Your task to perform on an android device: Open notification settings Image 0: 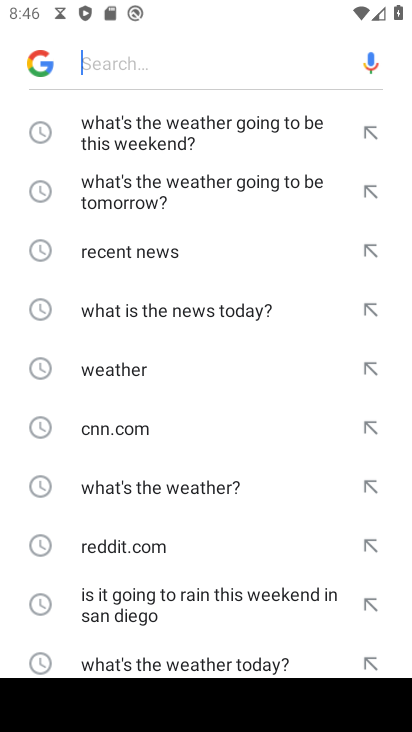
Step 0: press home button
Your task to perform on an android device: Open notification settings Image 1: 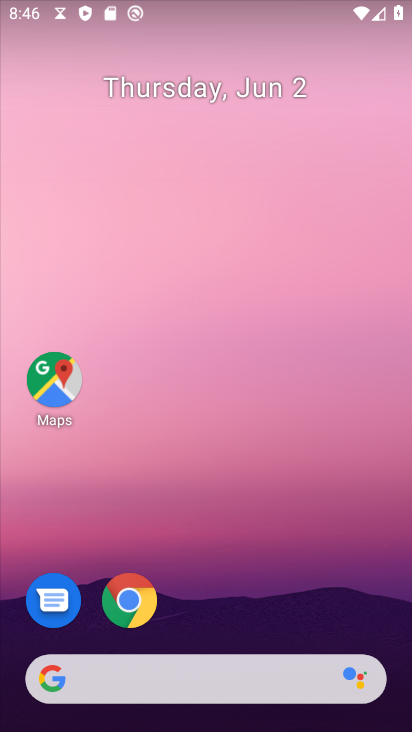
Step 1: drag from (226, 481) to (248, 32)
Your task to perform on an android device: Open notification settings Image 2: 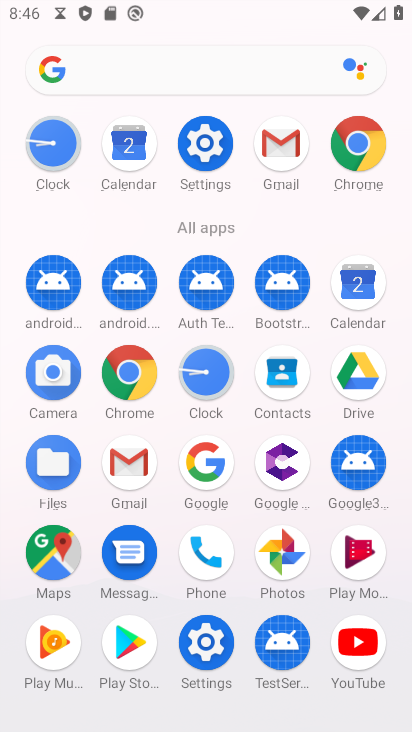
Step 2: click (203, 143)
Your task to perform on an android device: Open notification settings Image 3: 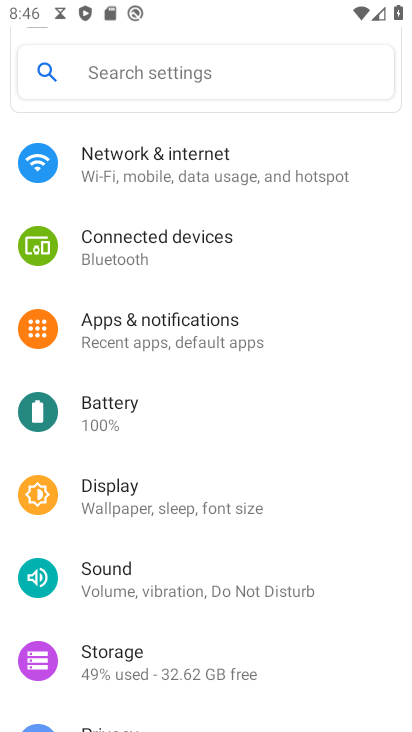
Step 3: click (182, 332)
Your task to perform on an android device: Open notification settings Image 4: 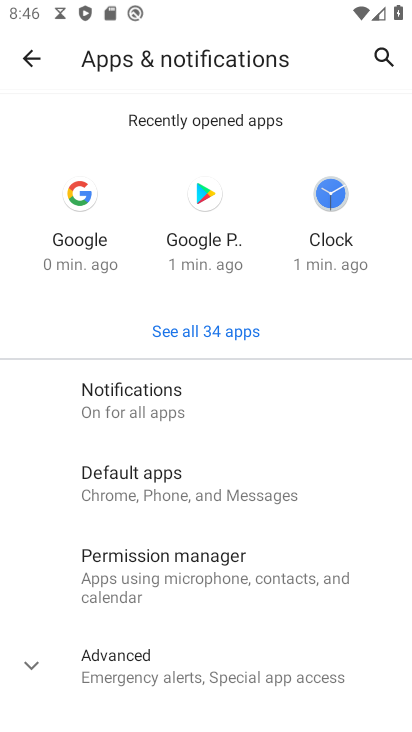
Step 4: click (188, 405)
Your task to perform on an android device: Open notification settings Image 5: 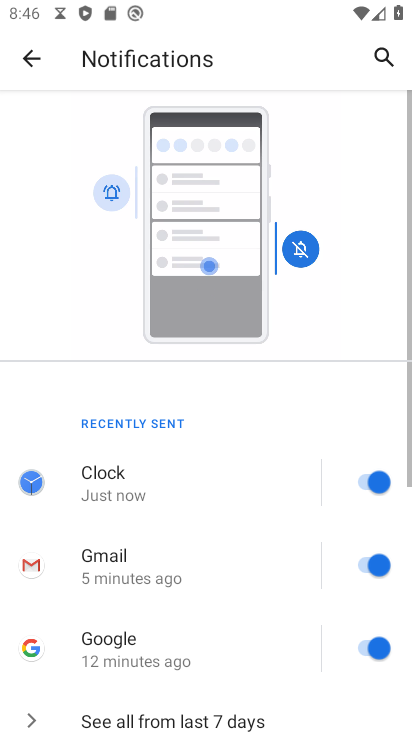
Step 5: task complete